Your task to perform on an android device: Go to Android settings Image 0: 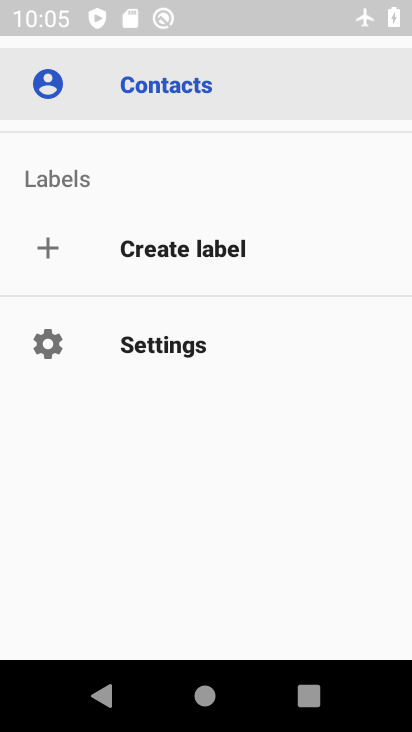
Step 0: press home button
Your task to perform on an android device: Go to Android settings Image 1: 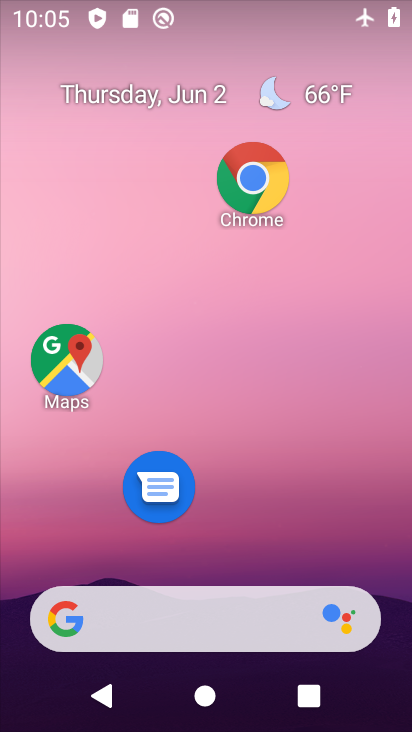
Step 1: drag from (242, 724) to (200, 166)
Your task to perform on an android device: Go to Android settings Image 2: 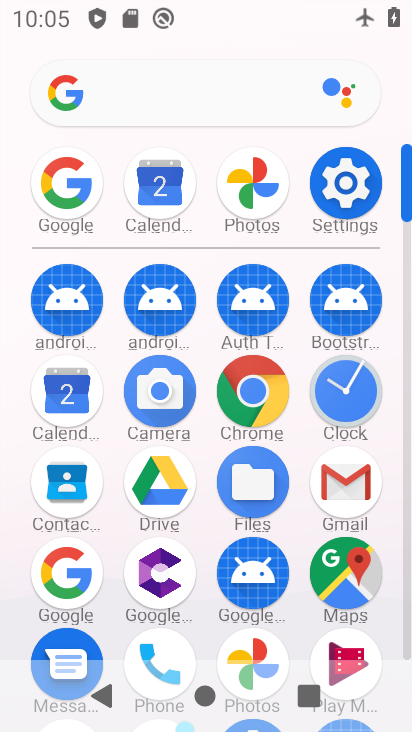
Step 2: click (333, 175)
Your task to perform on an android device: Go to Android settings Image 3: 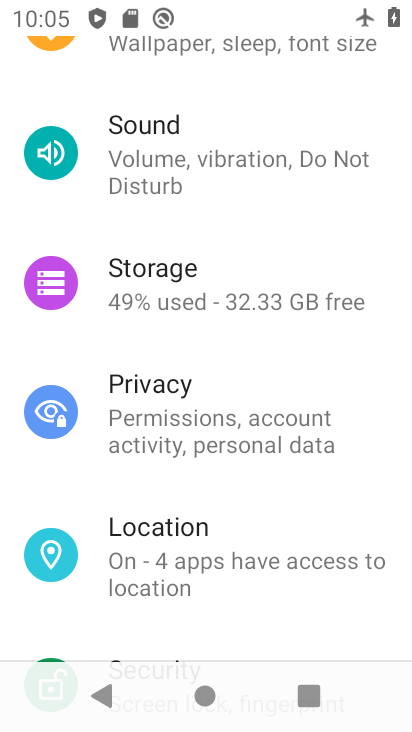
Step 3: task complete